Your task to perform on an android device: delete location history Image 0: 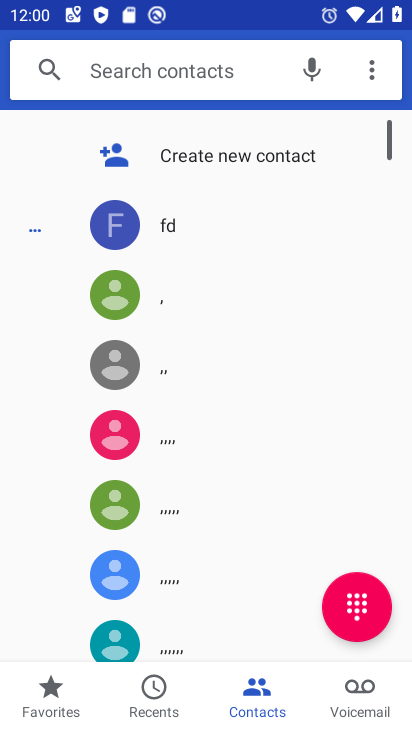
Step 0: press home button
Your task to perform on an android device: delete location history Image 1: 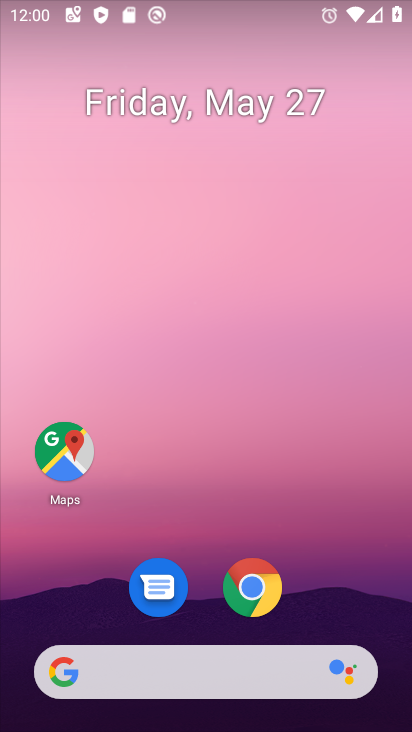
Step 1: drag from (202, 626) to (302, 36)
Your task to perform on an android device: delete location history Image 2: 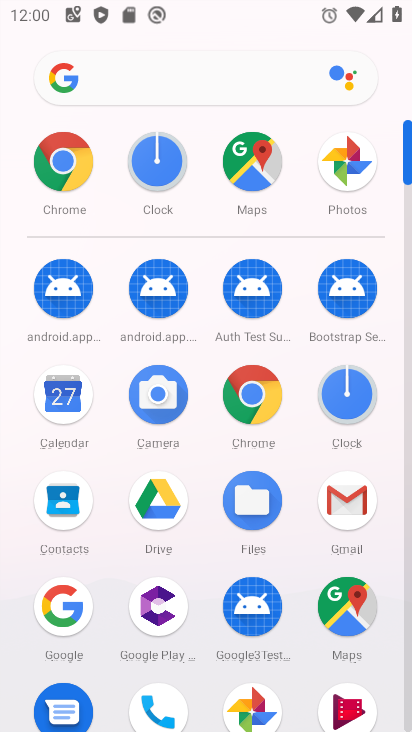
Step 2: drag from (108, 584) to (186, 313)
Your task to perform on an android device: delete location history Image 3: 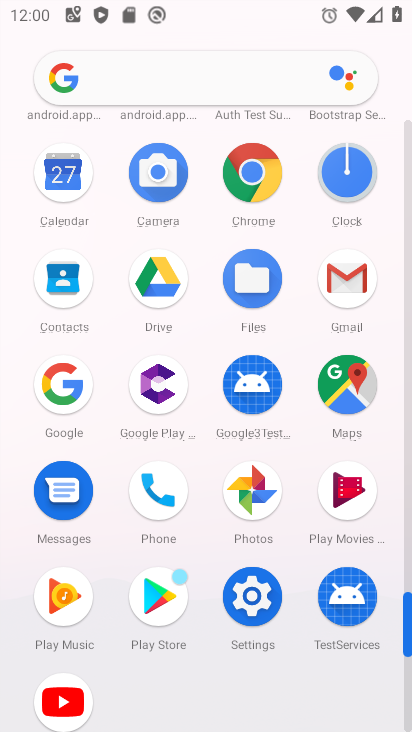
Step 3: click (249, 591)
Your task to perform on an android device: delete location history Image 4: 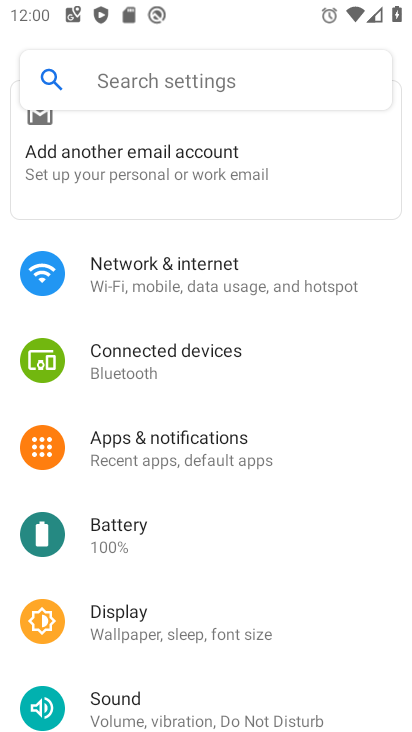
Step 4: click (175, 87)
Your task to perform on an android device: delete location history Image 5: 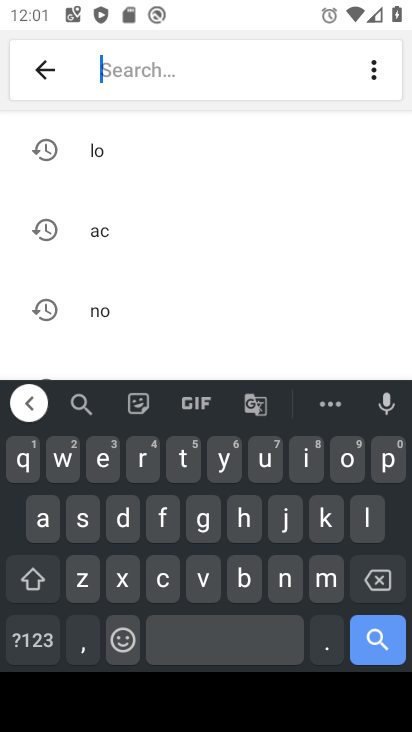
Step 5: click (169, 165)
Your task to perform on an android device: delete location history Image 6: 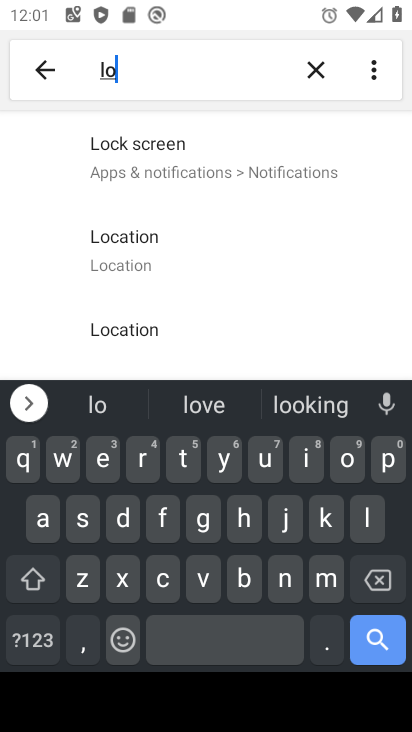
Step 6: click (181, 250)
Your task to perform on an android device: delete location history Image 7: 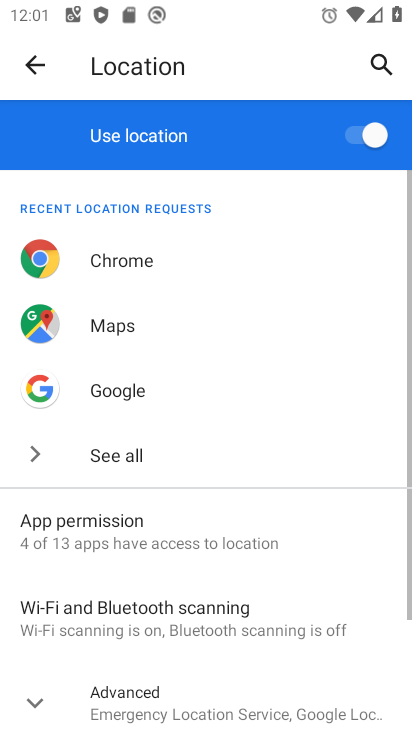
Step 7: drag from (136, 629) to (141, 270)
Your task to perform on an android device: delete location history Image 8: 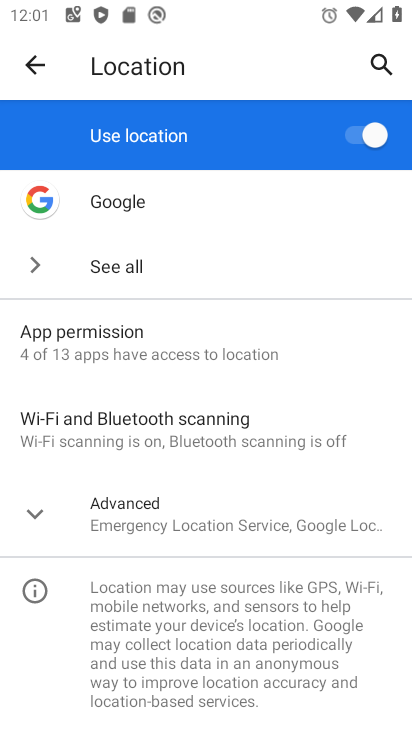
Step 8: click (56, 503)
Your task to perform on an android device: delete location history Image 9: 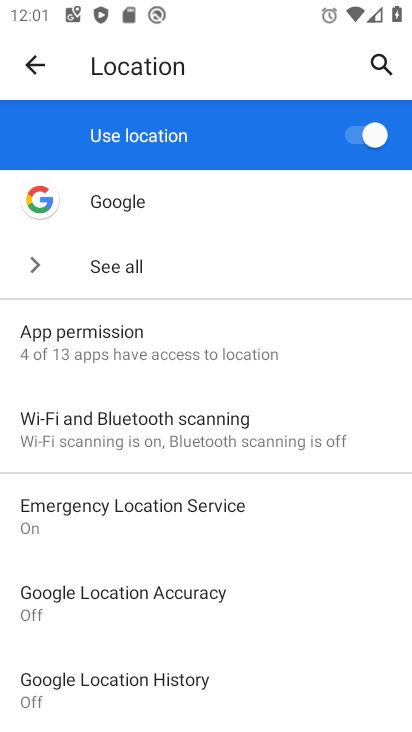
Step 9: drag from (130, 655) to (154, 454)
Your task to perform on an android device: delete location history Image 10: 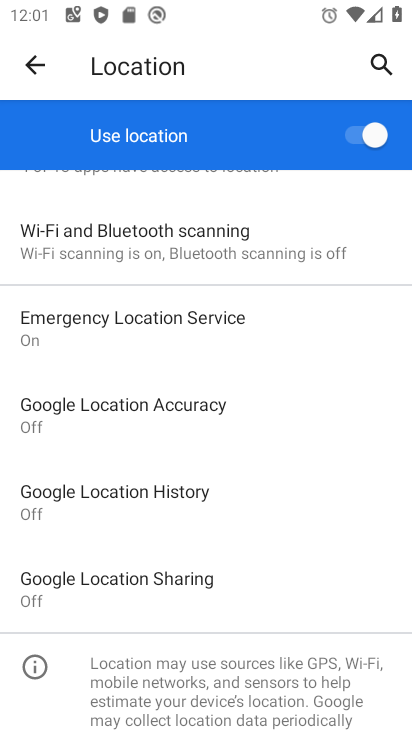
Step 10: click (156, 492)
Your task to perform on an android device: delete location history Image 11: 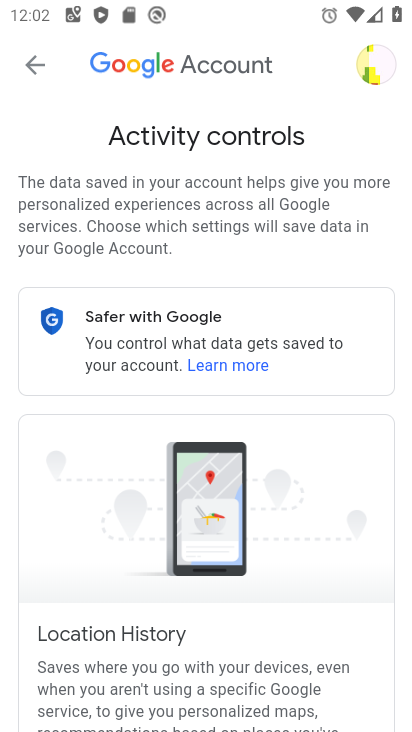
Step 11: drag from (233, 551) to (270, 248)
Your task to perform on an android device: delete location history Image 12: 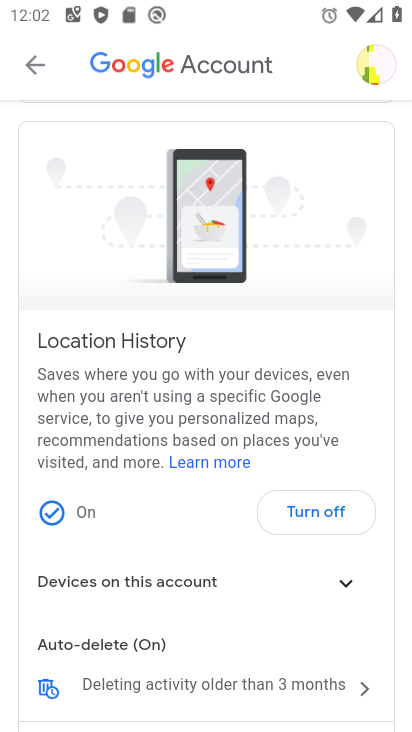
Step 12: click (291, 518)
Your task to perform on an android device: delete location history Image 13: 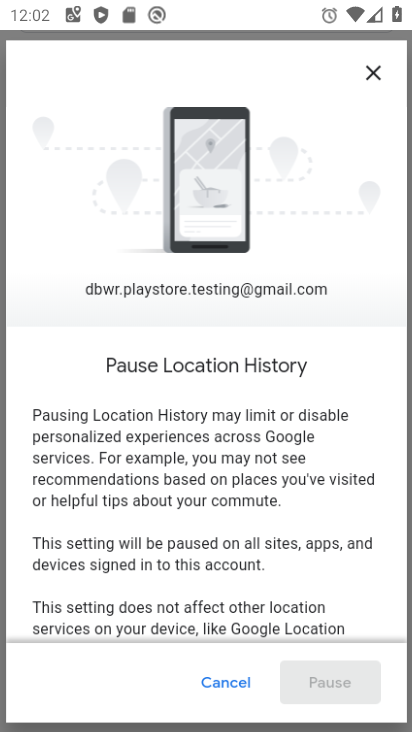
Step 13: task complete